Your task to perform on an android device: allow cookies in the chrome app Image 0: 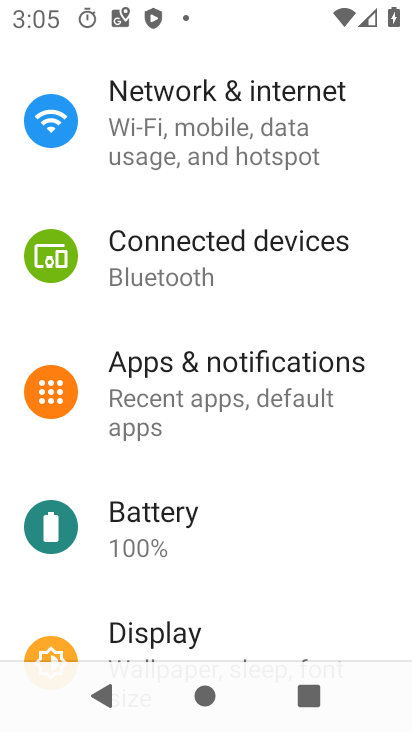
Step 0: press home button
Your task to perform on an android device: allow cookies in the chrome app Image 1: 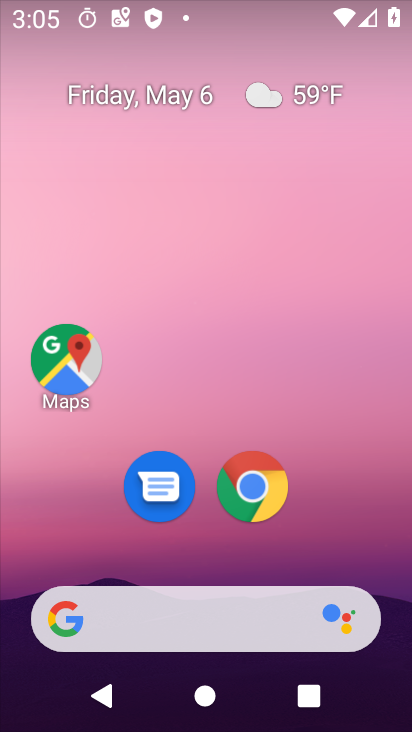
Step 1: click (254, 486)
Your task to perform on an android device: allow cookies in the chrome app Image 2: 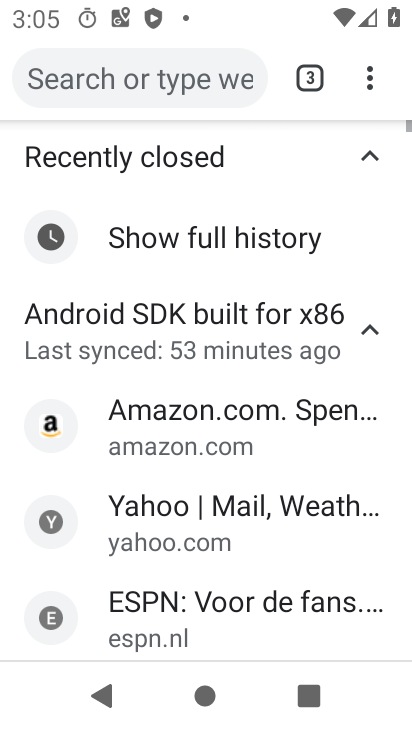
Step 2: click (368, 84)
Your task to perform on an android device: allow cookies in the chrome app Image 3: 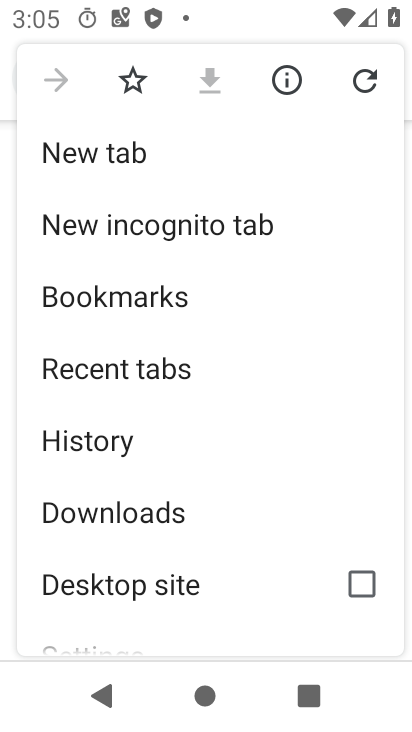
Step 3: drag from (223, 514) to (135, 165)
Your task to perform on an android device: allow cookies in the chrome app Image 4: 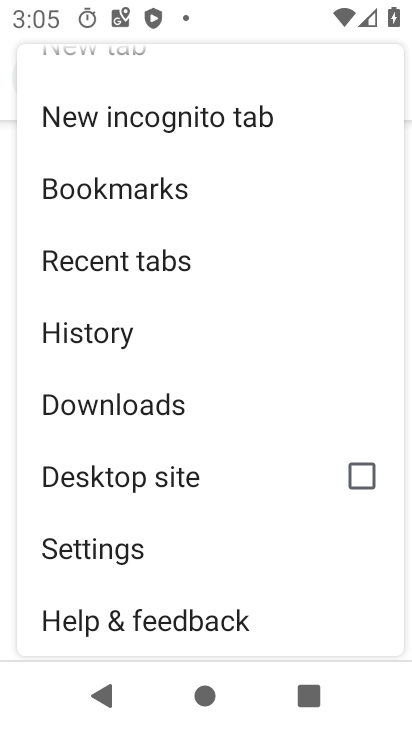
Step 4: click (88, 550)
Your task to perform on an android device: allow cookies in the chrome app Image 5: 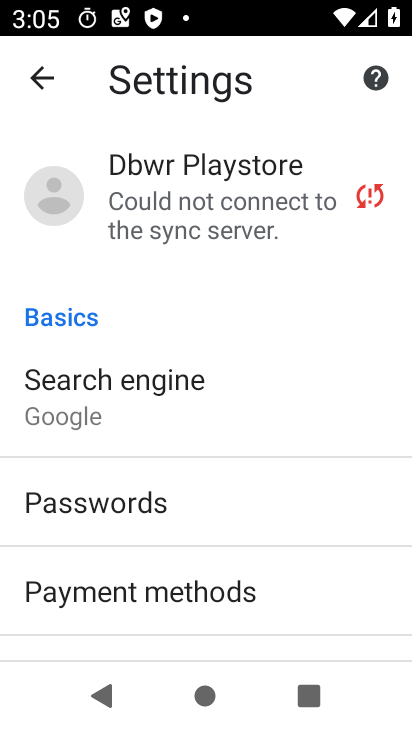
Step 5: drag from (224, 431) to (181, 142)
Your task to perform on an android device: allow cookies in the chrome app Image 6: 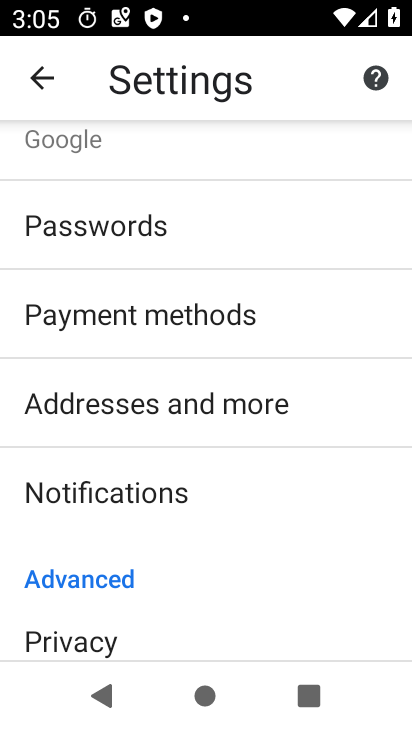
Step 6: drag from (208, 534) to (164, 253)
Your task to perform on an android device: allow cookies in the chrome app Image 7: 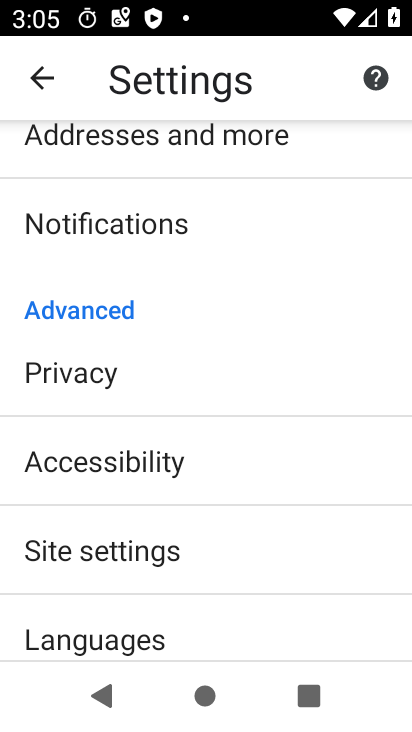
Step 7: drag from (228, 515) to (180, 264)
Your task to perform on an android device: allow cookies in the chrome app Image 8: 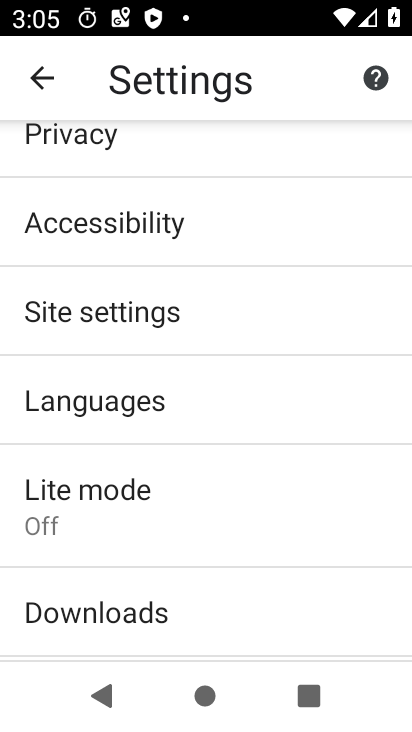
Step 8: click (128, 314)
Your task to perform on an android device: allow cookies in the chrome app Image 9: 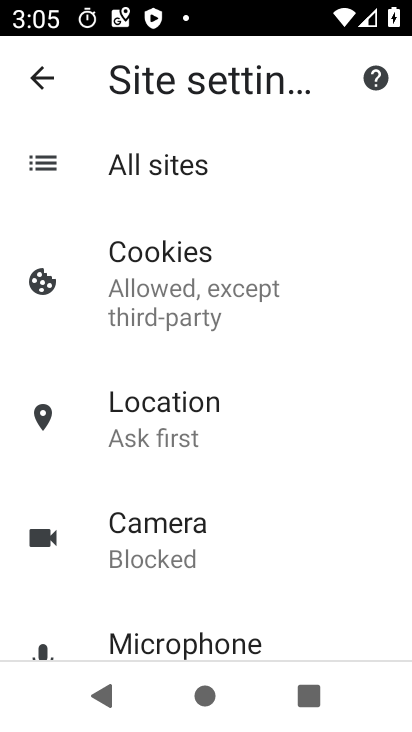
Step 9: click (176, 252)
Your task to perform on an android device: allow cookies in the chrome app Image 10: 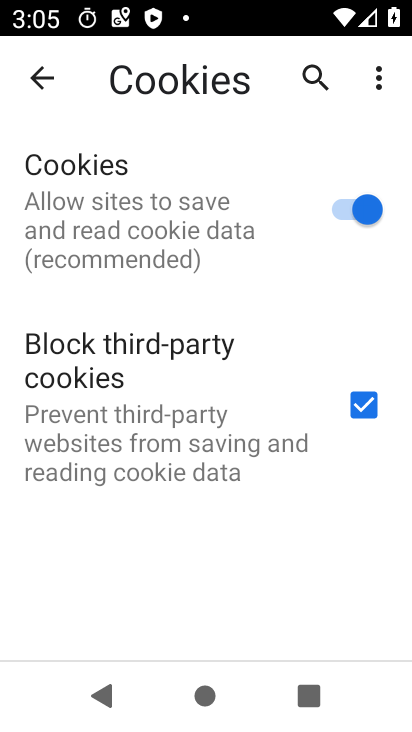
Step 10: task complete